Your task to perform on an android device: open chrome privacy settings Image 0: 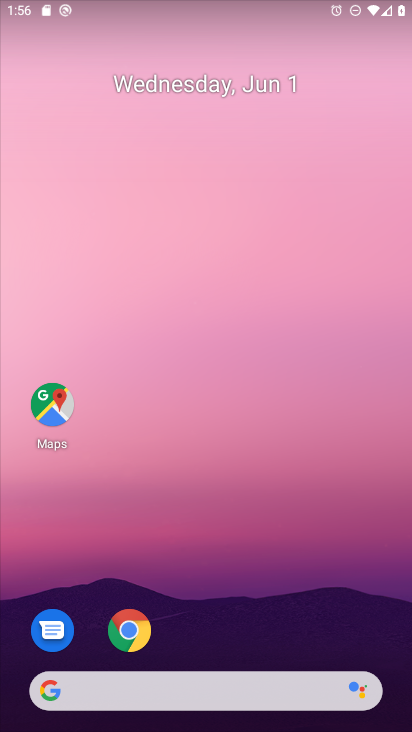
Step 0: drag from (319, 659) to (297, 89)
Your task to perform on an android device: open chrome privacy settings Image 1: 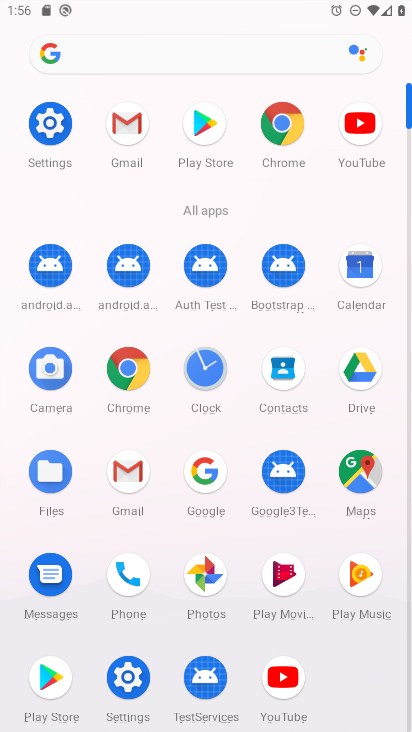
Step 1: click (118, 368)
Your task to perform on an android device: open chrome privacy settings Image 2: 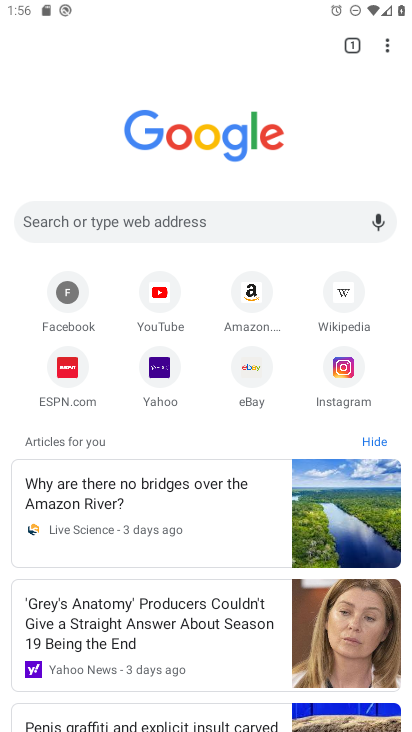
Step 2: drag from (380, 42) to (255, 381)
Your task to perform on an android device: open chrome privacy settings Image 3: 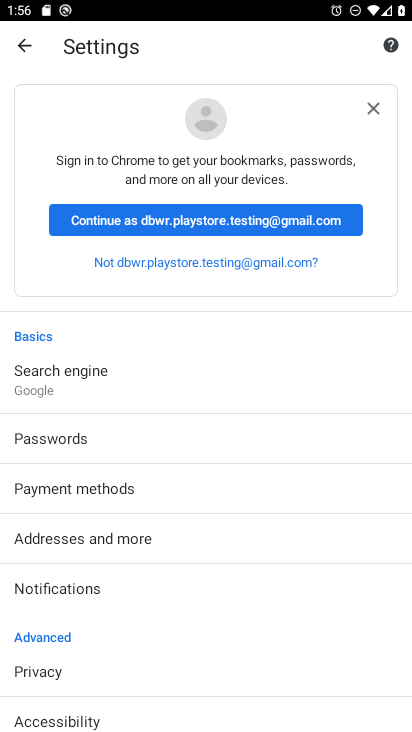
Step 3: click (113, 673)
Your task to perform on an android device: open chrome privacy settings Image 4: 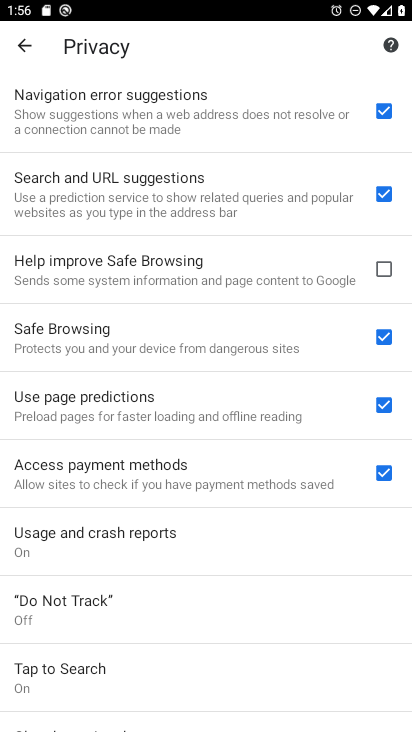
Step 4: task complete